Your task to perform on an android device: Set the phone to "Do not disturb". Image 0: 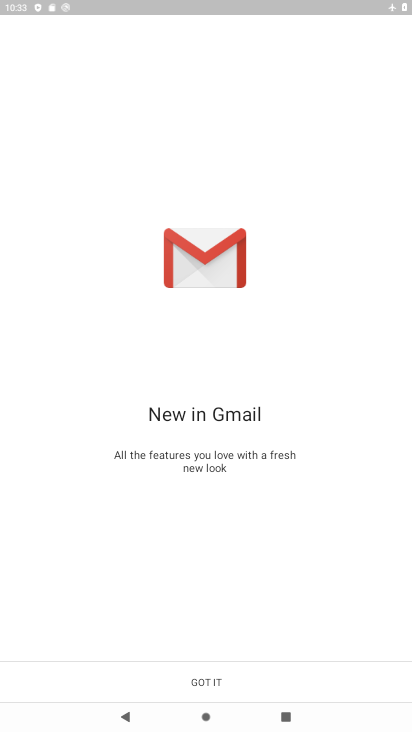
Step 0: press home button
Your task to perform on an android device: Set the phone to "Do not disturb". Image 1: 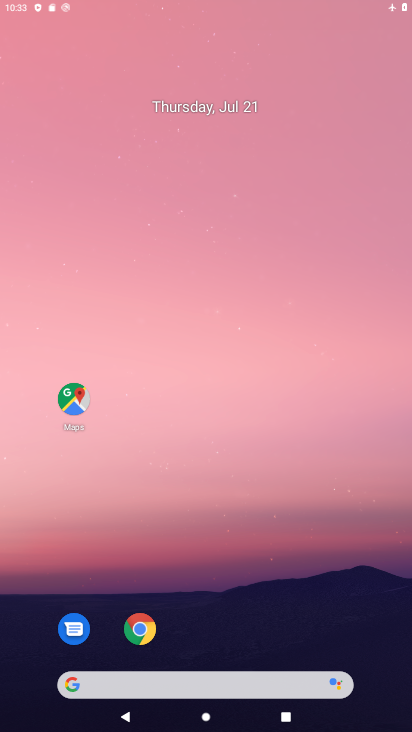
Step 1: drag from (244, 640) to (280, 134)
Your task to perform on an android device: Set the phone to "Do not disturb". Image 2: 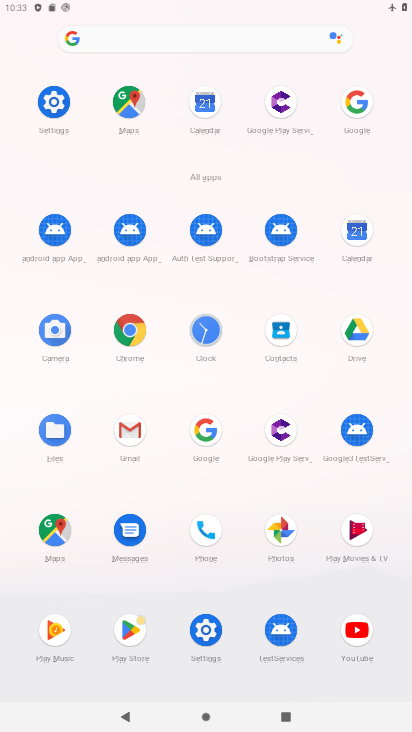
Step 2: click (54, 162)
Your task to perform on an android device: Set the phone to "Do not disturb". Image 3: 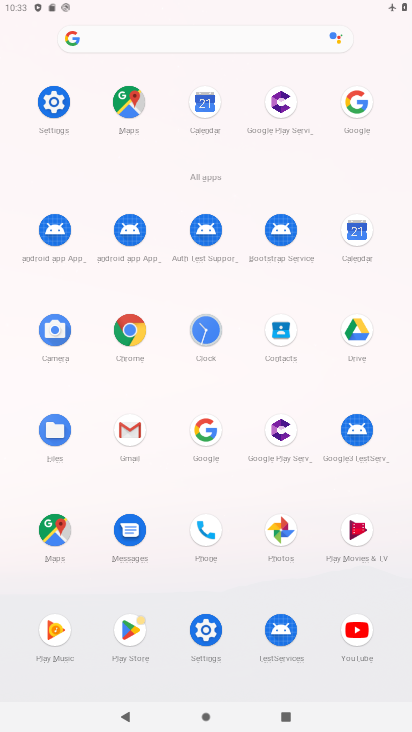
Step 3: click (56, 104)
Your task to perform on an android device: Set the phone to "Do not disturb". Image 4: 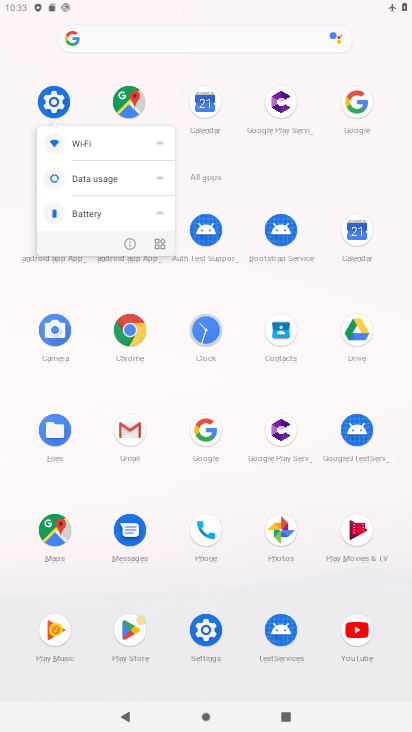
Step 4: click (58, 103)
Your task to perform on an android device: Set the phone to "Do not disturb". Image 5: 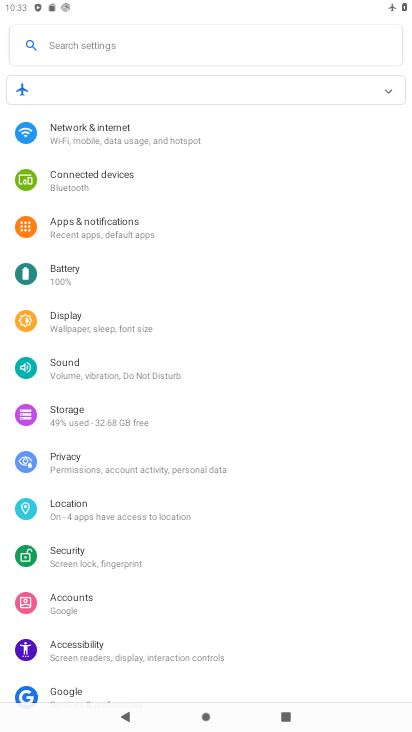
Step 5: click (130, 371)
Your task to perform on an android device: Set the phone to "Do not disturb". Image 6: 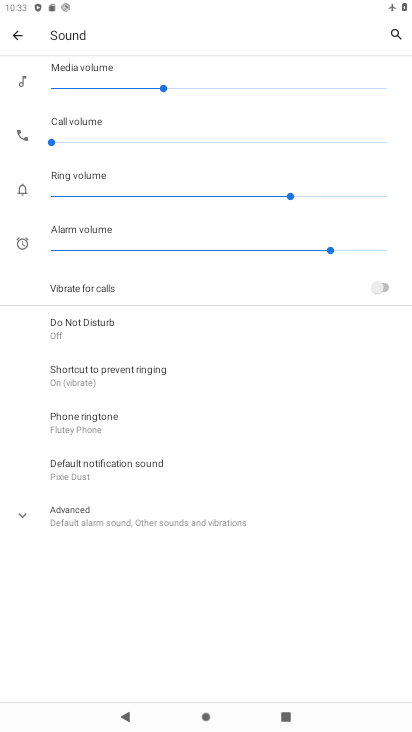
Step 6: click (97, 336)
Your task to perform on an android device: Set the phone to "Do not disturb". Image 7: 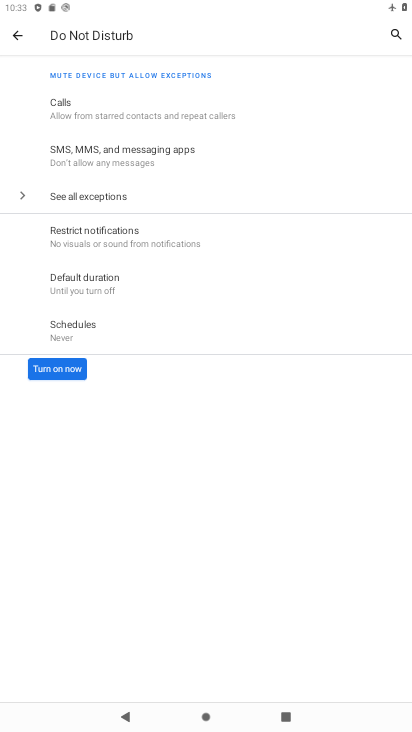
Step 7: click (51, 366)
Your task to perform on an android device: Set the phone to "Do not disturb". Image 8: 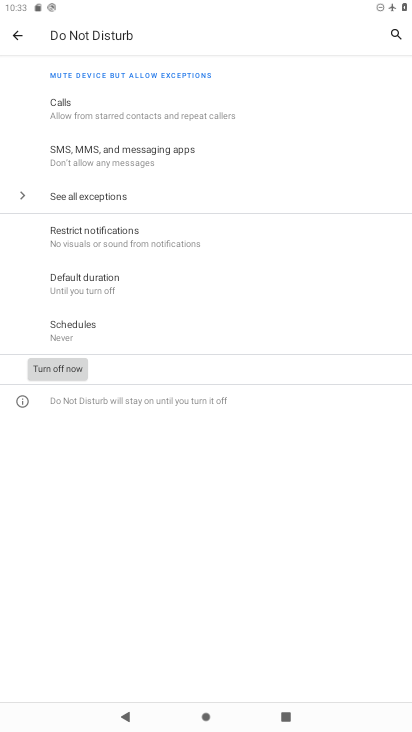
Step 8: task complete